Your task to perform on an android device: Show me popular games on the Play Store Image 0: 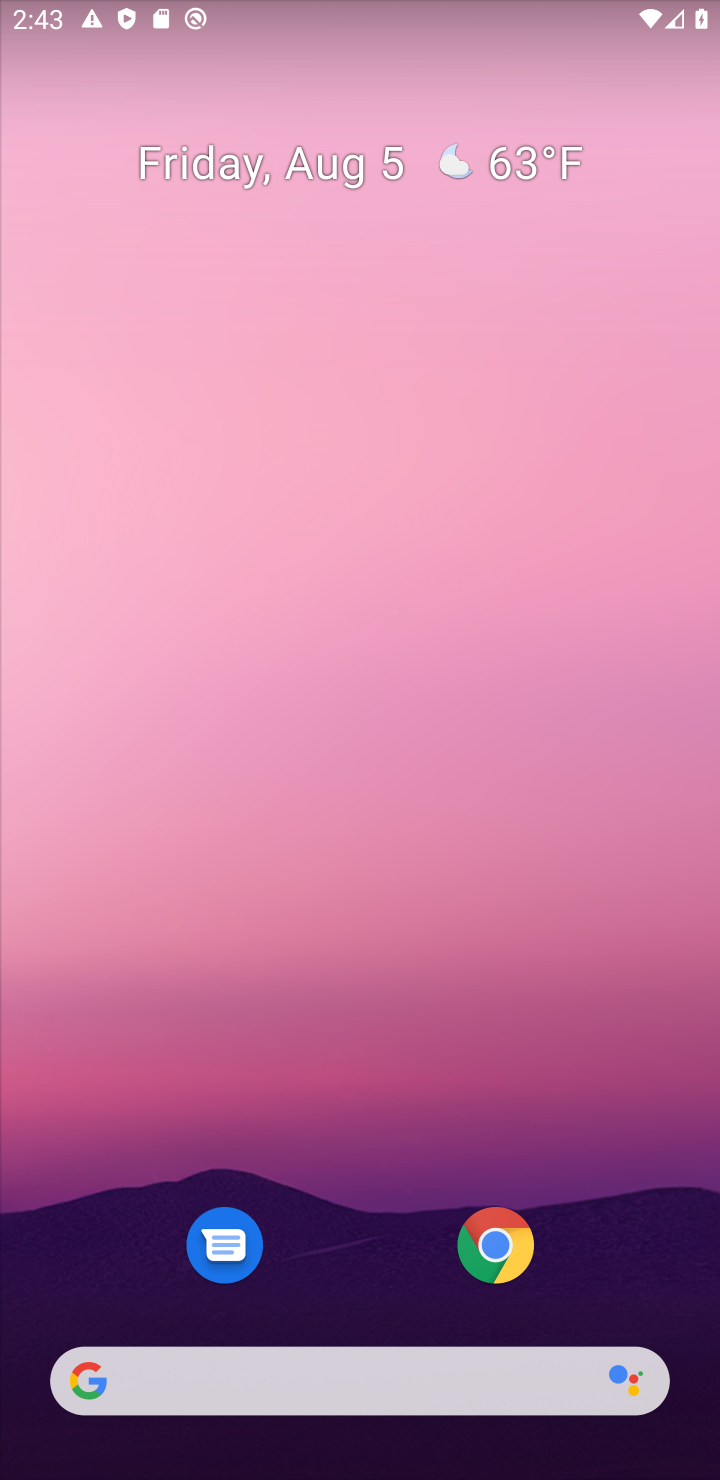
Step 0: drag from (328, 614) to (338, 322)
Your task to perform on an android device: Show me popular games on the Play Store Image 1: 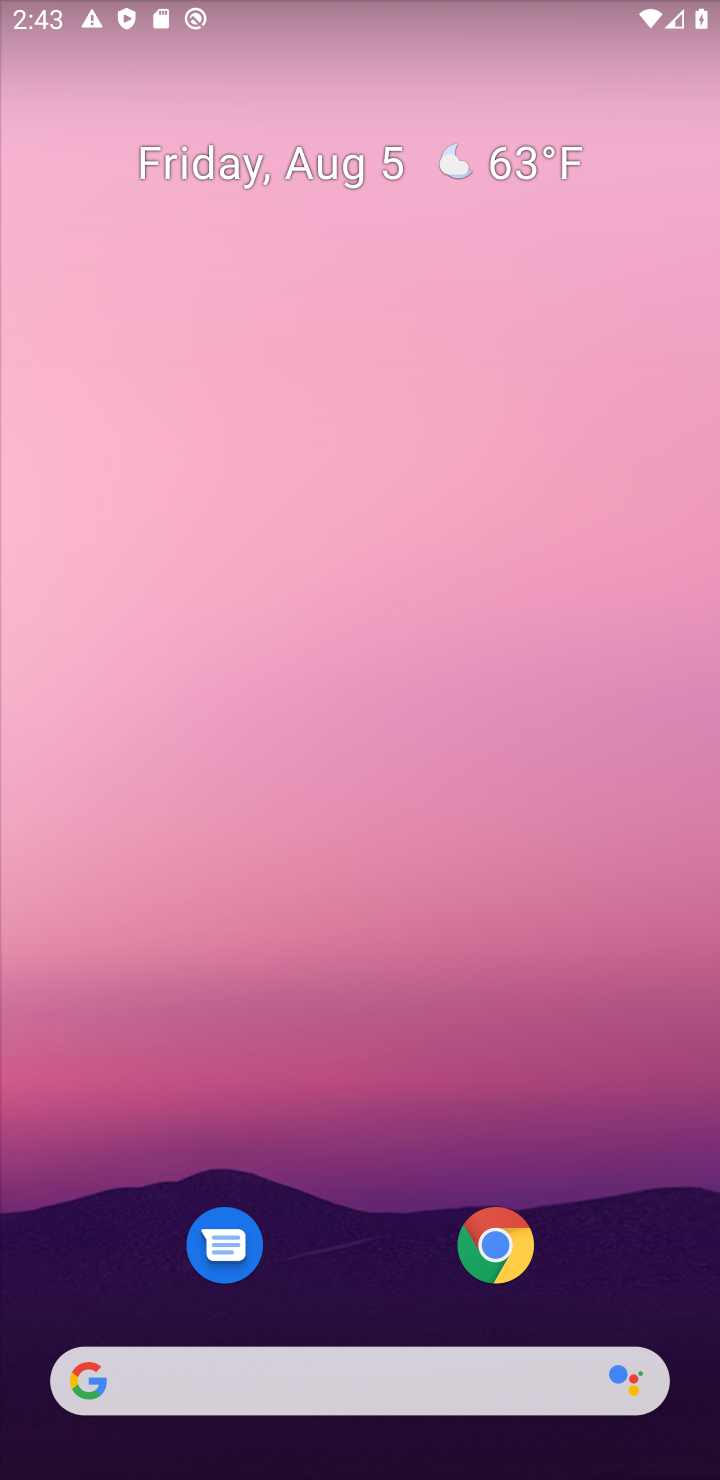
Step 1: drag from (323, 791) to (305, 542)
Your task to perform on an android device: Show me popular games on the Play Store Image 2: 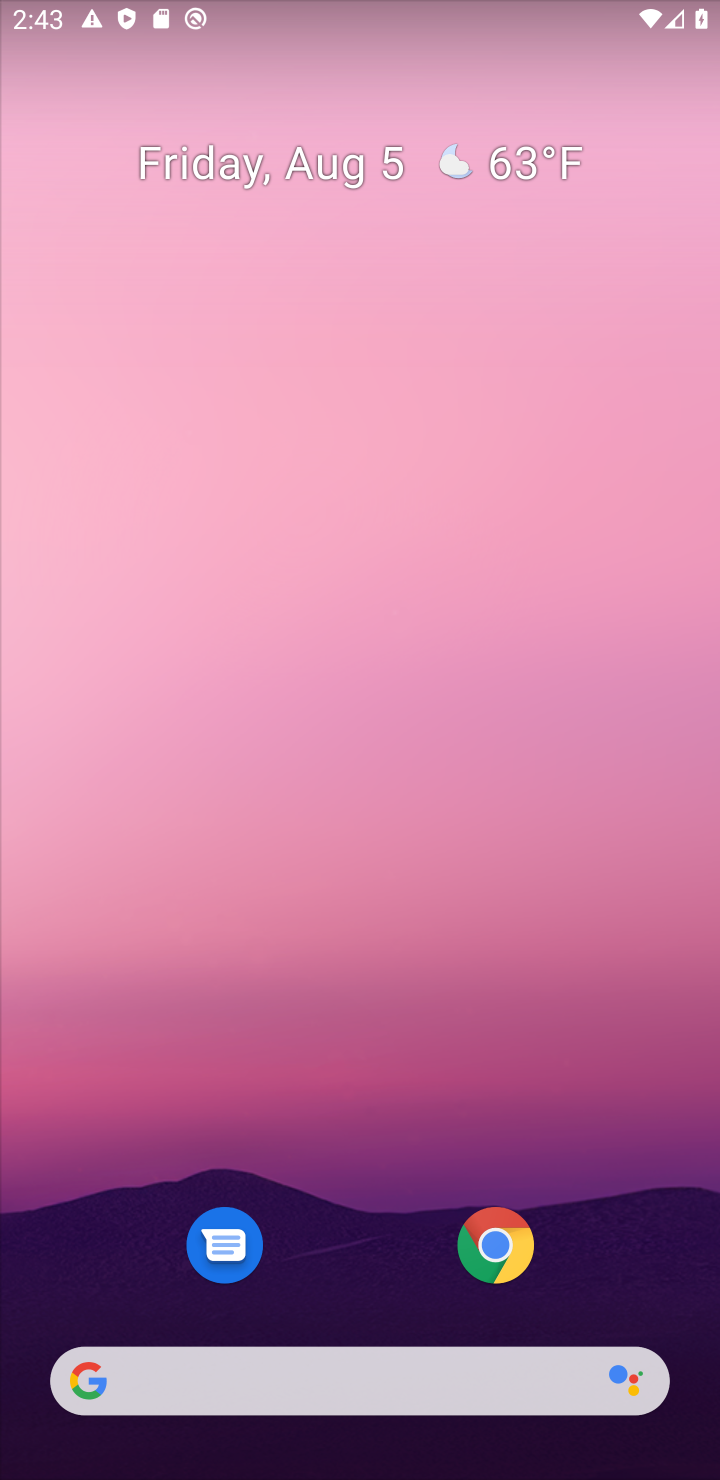
Step 2: drag from (346, 923) to (416, 344)
Your task to perform on an android device: Show me popular games on the Play Store Image 3: 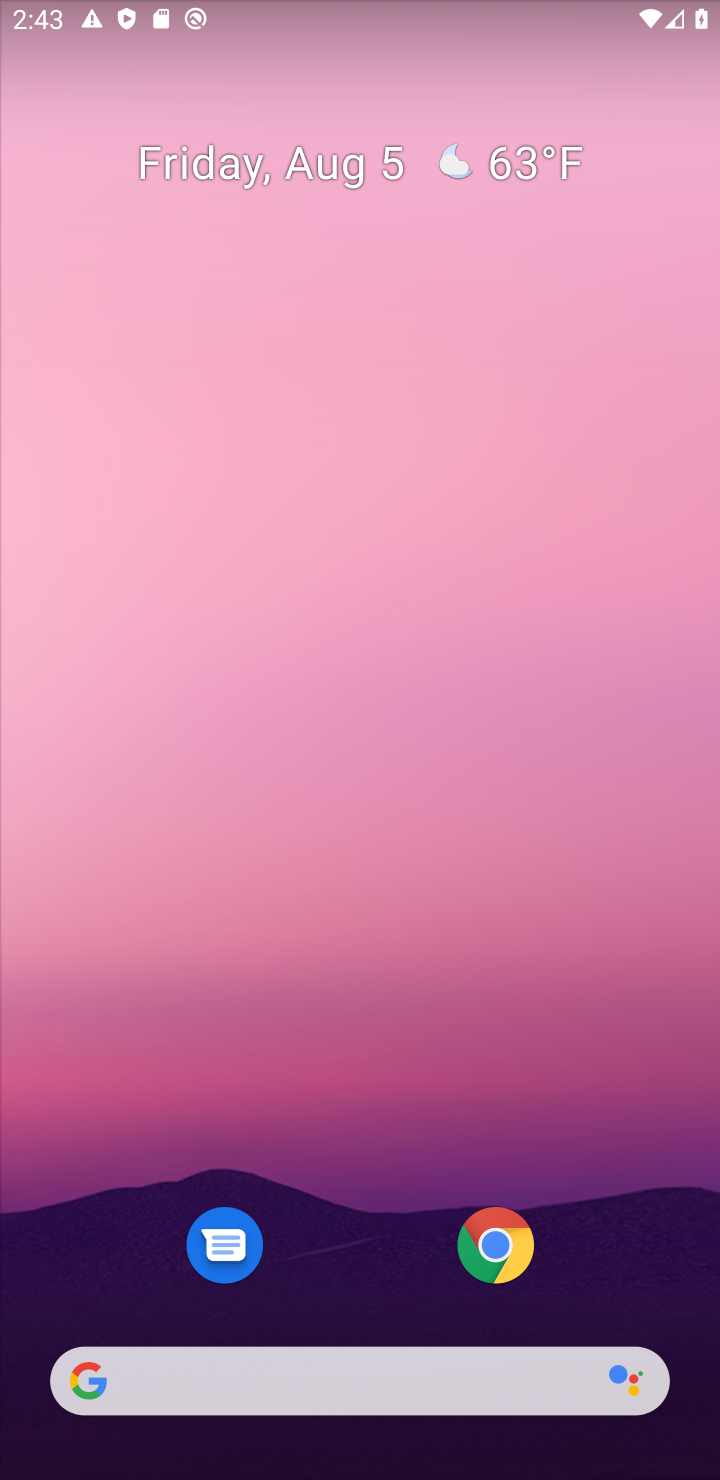
Step 3: drag from (350, 1044) to (363, 220)
Your task to perform on an android device: Show me popular games on the Play Store Image 4: 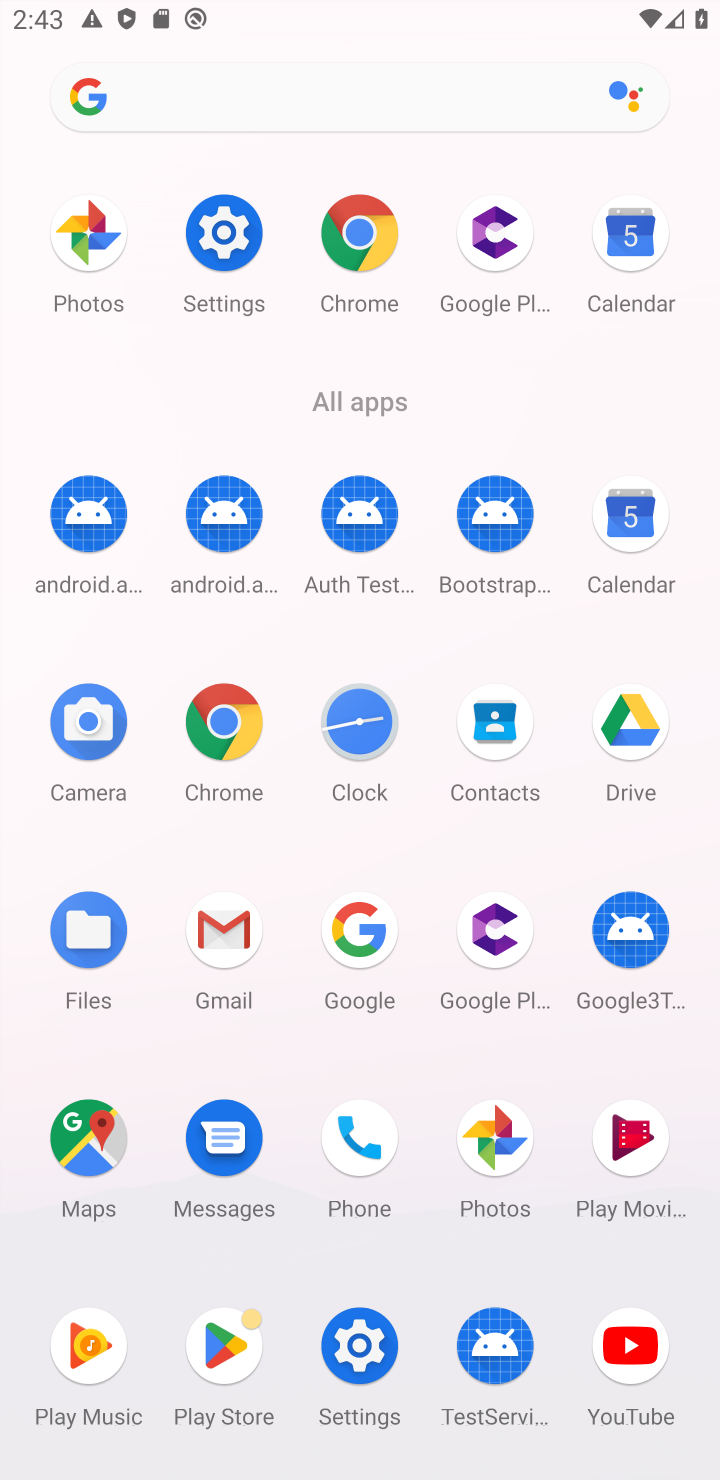
Step 4: click (225, 1316)
Your task to perform on an android device: Show me popular games on the Play Store Image 5: 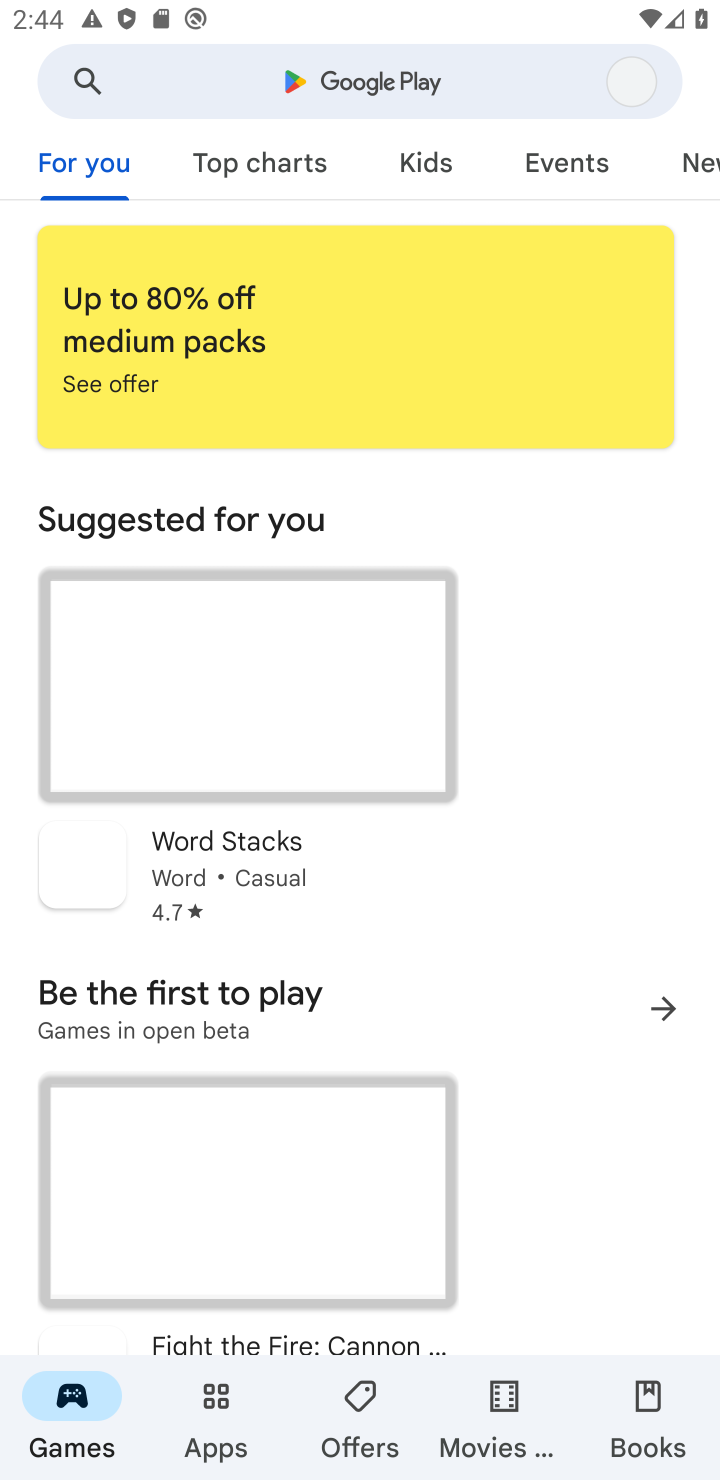
Step 5: task complete